Your task to perform on an android device: Open Google Chrome and open the bookmarks view Image 0: 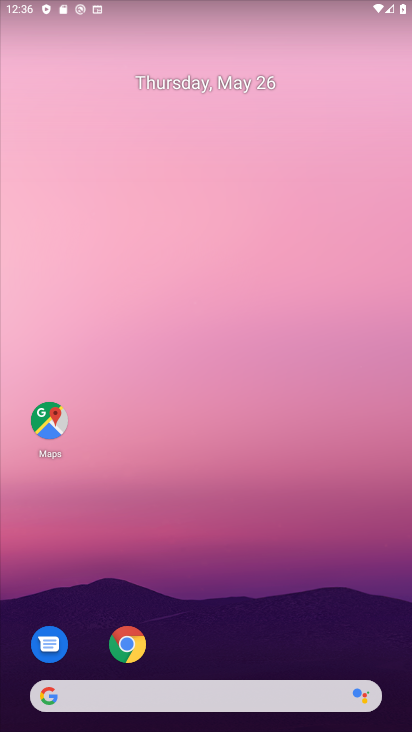
Step 0: press home button
Your task to perform on an android device: Open Google Chrome and open the bookmarks view Image 1: 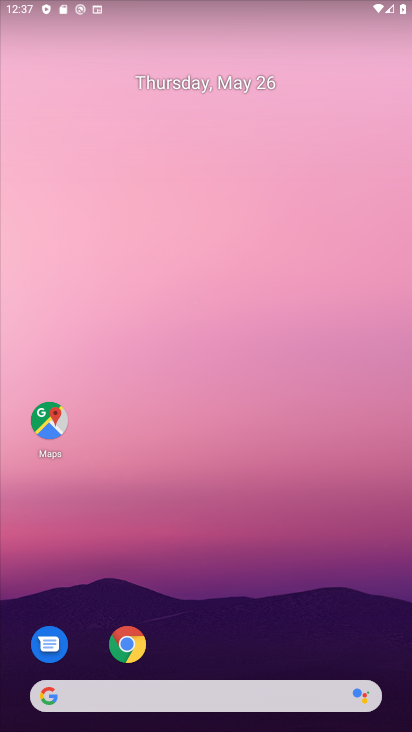
Step 1: click (133, 648)
Your task to perform on an android device: Open Google Chrome and open the bookmarks view Image 2: 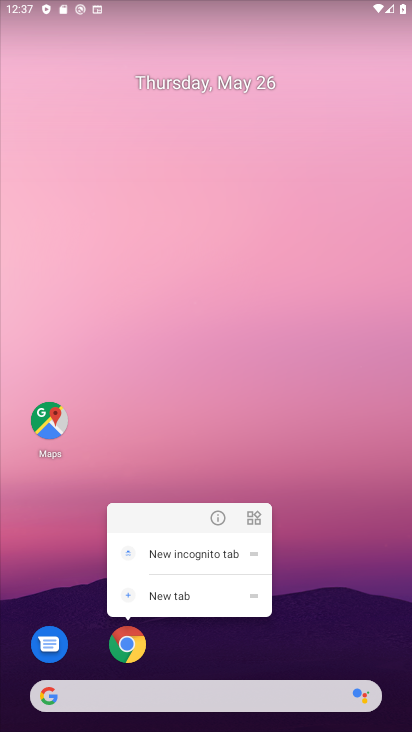
Step 2: click (122, 642)
Your task to perform on an android device: Open Google Chrome and open the bookmarks view Image 3: 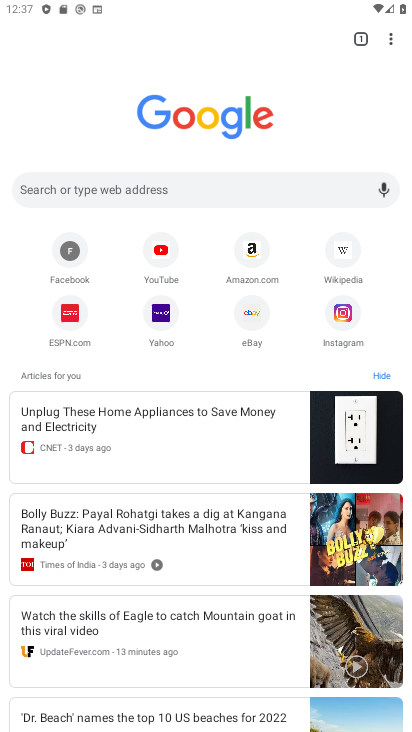
Step 3: click (392, 43)
Your task to perform on an android device: Open Google Chrome and open the bookmarks view Image 4: 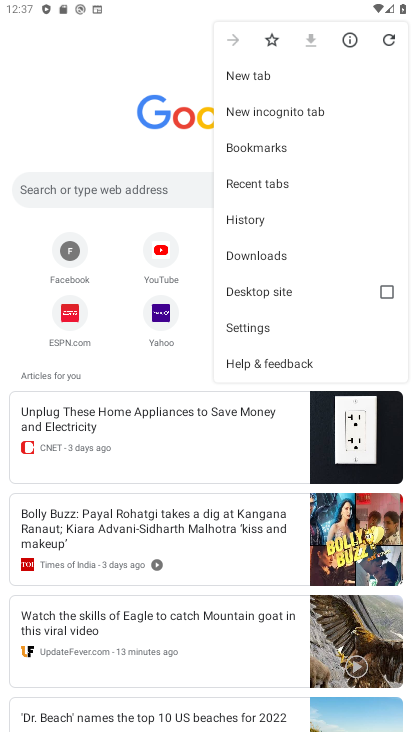
Step 4: click (277, 143)
Your task to perform on an android device: Open Google Chrome and open the bookmarks view Image 5: 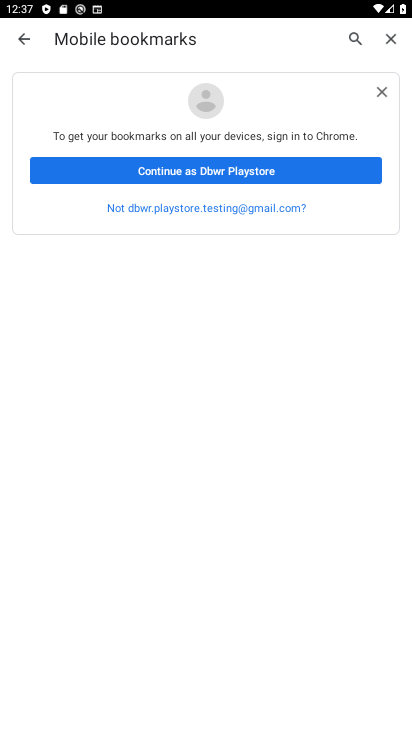
Step 5: click (383, 96)
Your task to perform on an android device: Open Google Chrome and open the bookmarks view Image 6: 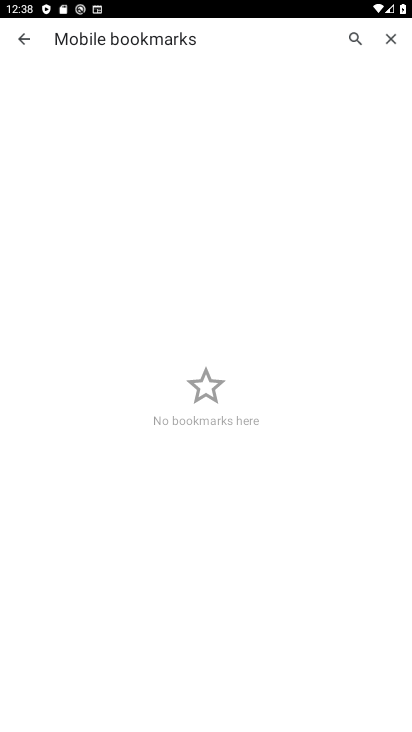
Step 6: task complete